Your task to perform on an android device: turn off airplane mode Image 0: 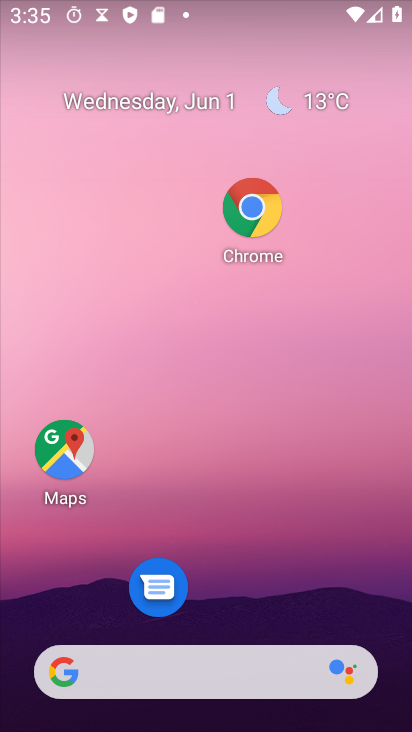
Step 0: drag from (247, 710) to (107, 291)
Your task to perform on an android device: turn off airplane mode Image 1: 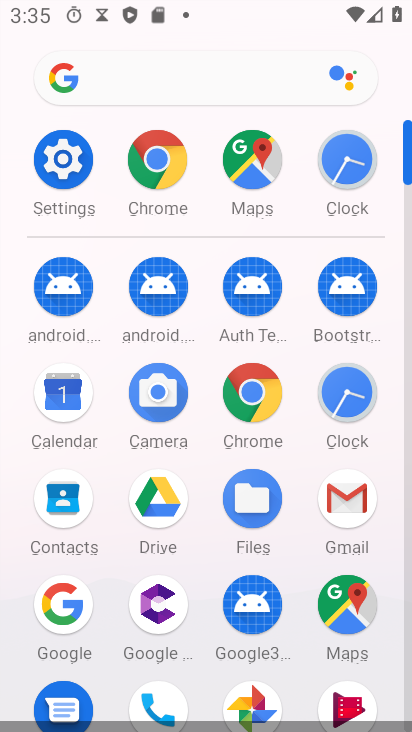
Step 1: click (58, 170)
Your task to perform on an android device: turn off airplane mode Image 2: 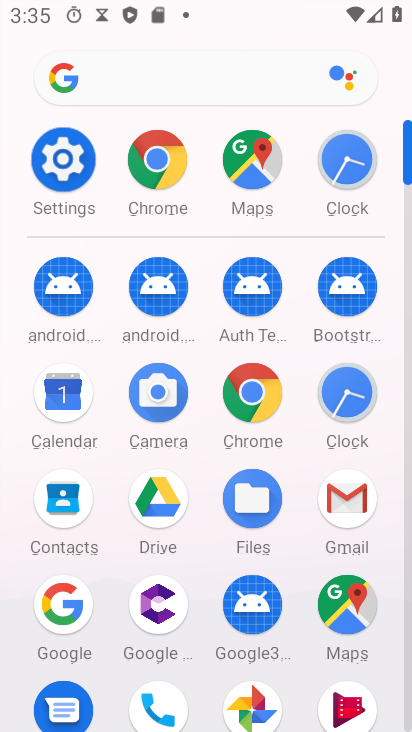
Step 2: click (59, 170)
Your task to perform on an android device: turn off airplane mode Image 3: 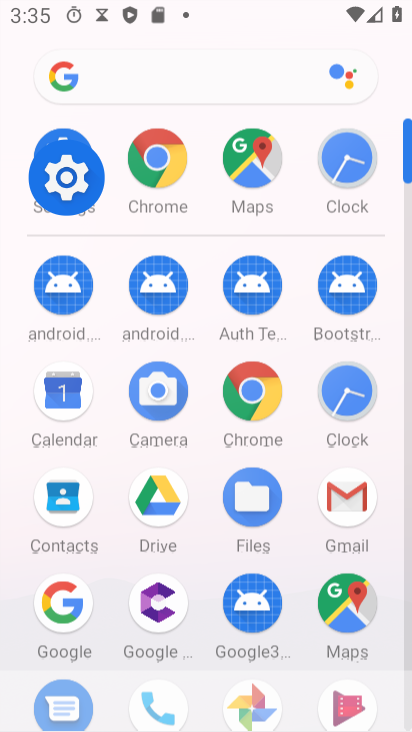
Step 3: click (59, 170)
Your task to perform on an android device: turn off airplane mode Image 4: 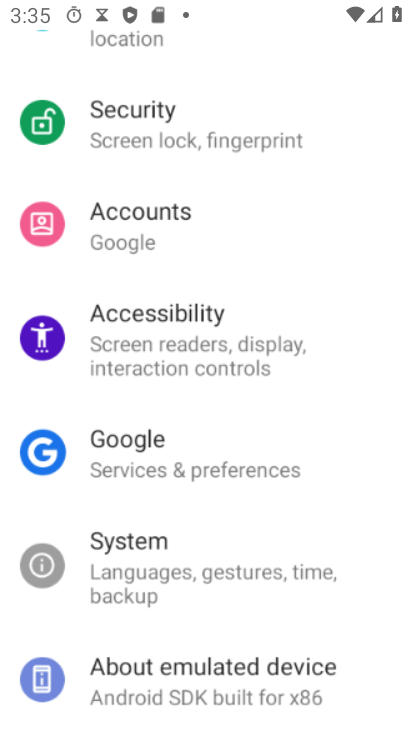
Step 4: click (59, 170)
Your task to perform on an android device: turn off airplane mode Image 5: 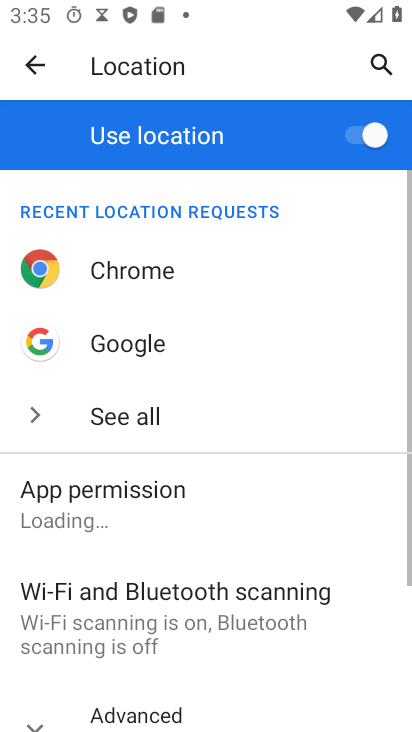
Step 5: click (45, 66)
Your task to perform on an android device: turn off airplane mode Image 6: 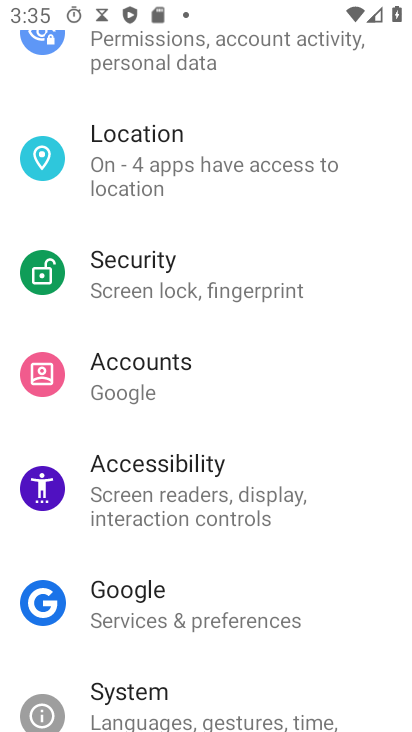
Step 6: drag from (167, 142) to (204, 530)
Your task to perform on an android device: turn off airplane mode Image 7: 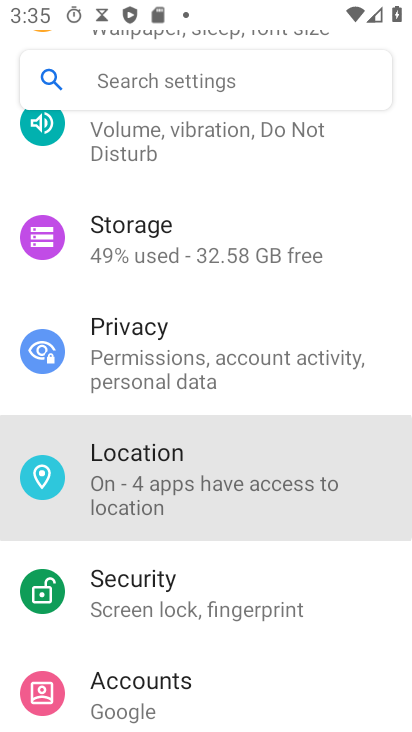
Step 7: drag from (204, 234) to (229, 543)
Your task to perform on an android device: turn off airplane mode Image 8: 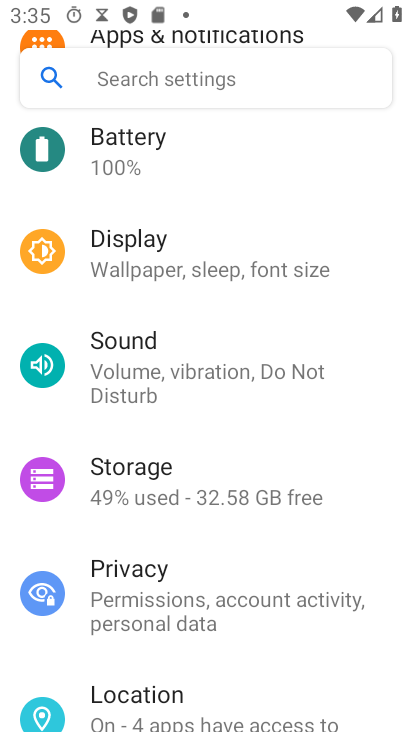
Step 8: drag from (241, 339) to (242, 502)
Your task to perform on an android device: turn off airplane mode Image 9: 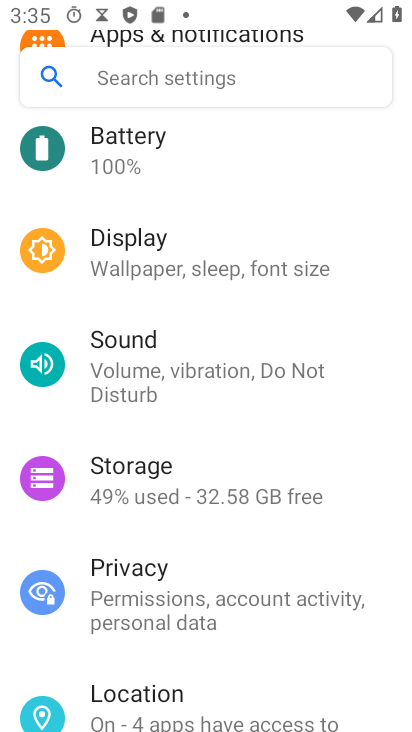
Step 9: drag from (196, 249) to (269, 696)
Your task to perform on an android device: turn off airplane mode Image 10: 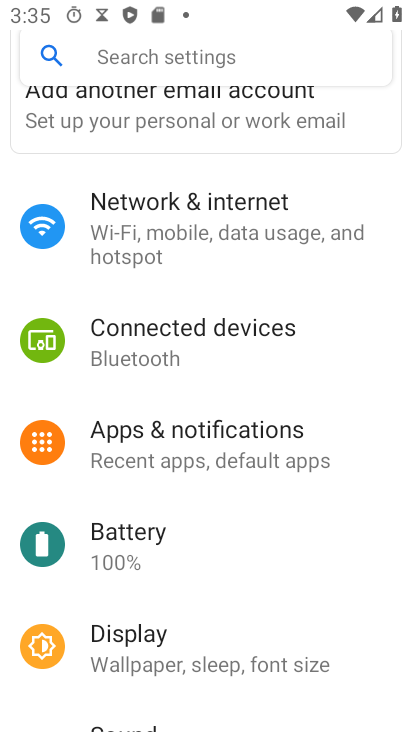
Step 10: drag from (262, 331) to (239, 490)
Your task to perform on an android device: turn off airplane mode Image 11: 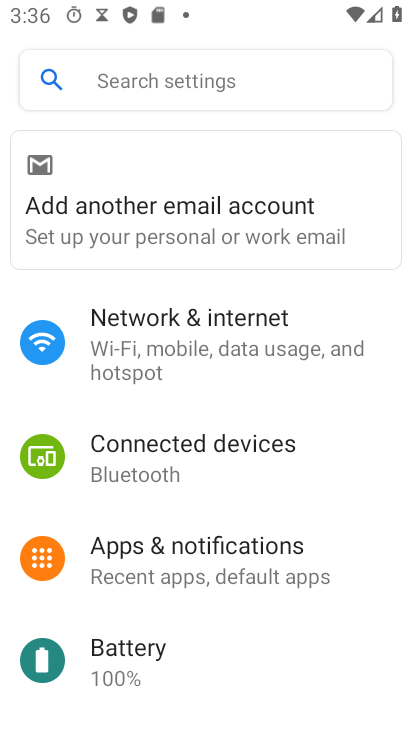
Step 11: click (173, 550)
Your task to perform on an android device: turn off airplane mode Image 12: 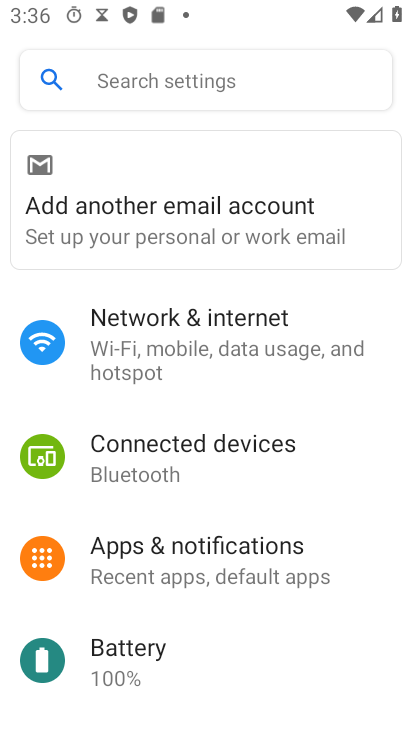
Step 12: click (173, 550)
Your task to perform on an android device: turn off airplane mode Image 13: 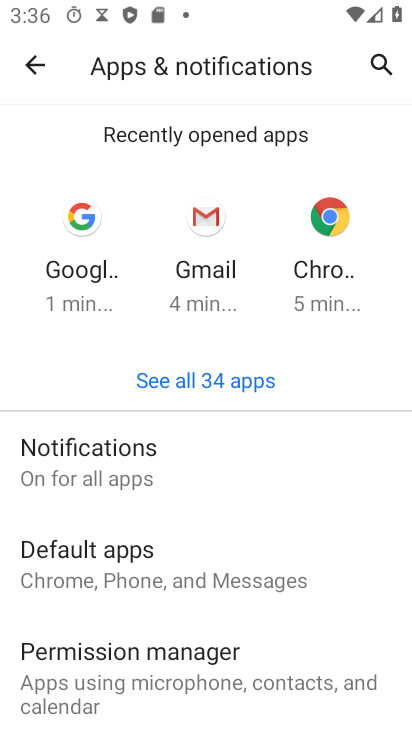
Step 13: click (31, 45)
Your task to perform on an android device: turn off airplane mode Image 14: 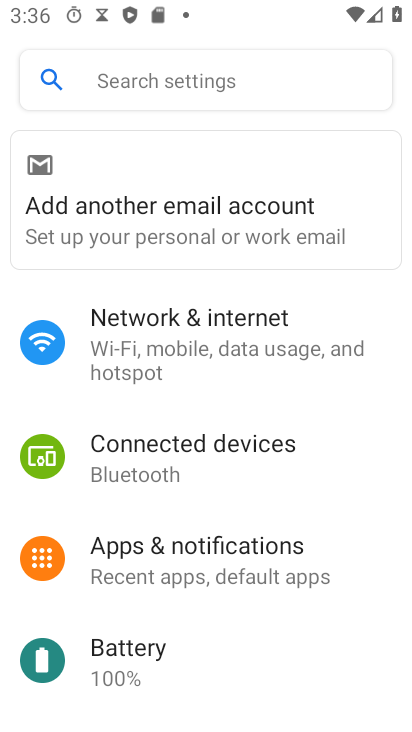
Step 14: click (208, 337)
Your task to perform on an android device: turn off airplane mode Image 15: 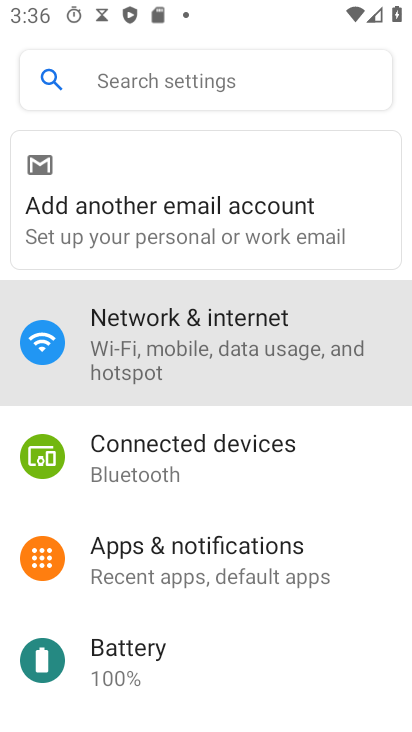
Step 15: click (208, 337)
Your task to perform on an android device: turn off airplane mode Image 16: 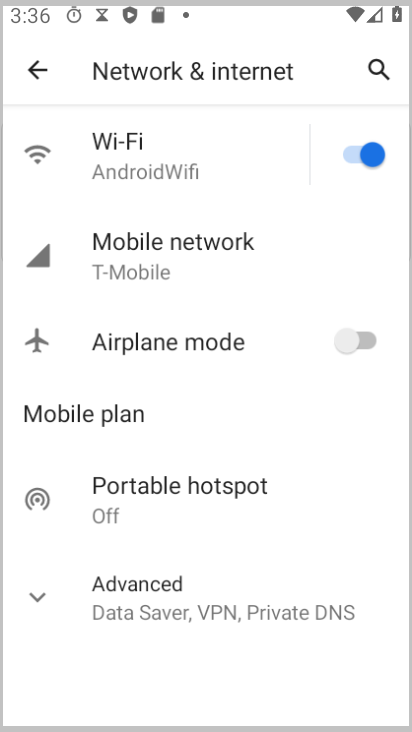
Step 16: click (209, 336)
Your task to perform on an android device: turn off airplane mode Image 17: 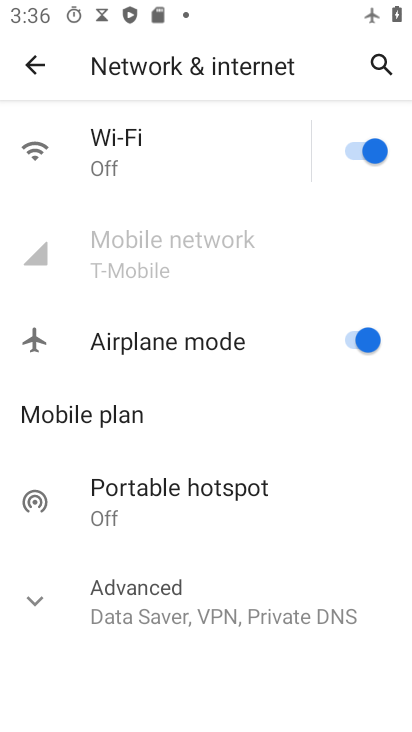
Step 17: click (345, 334)
Your task to perform on an android device: turn off airplane mode Image 18: 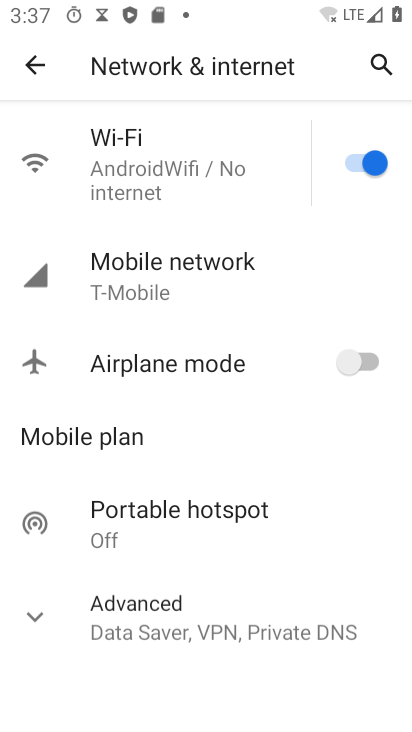
Step 18: task complete